Your task to perform on an android device: open sync settings in chrome Image 0: 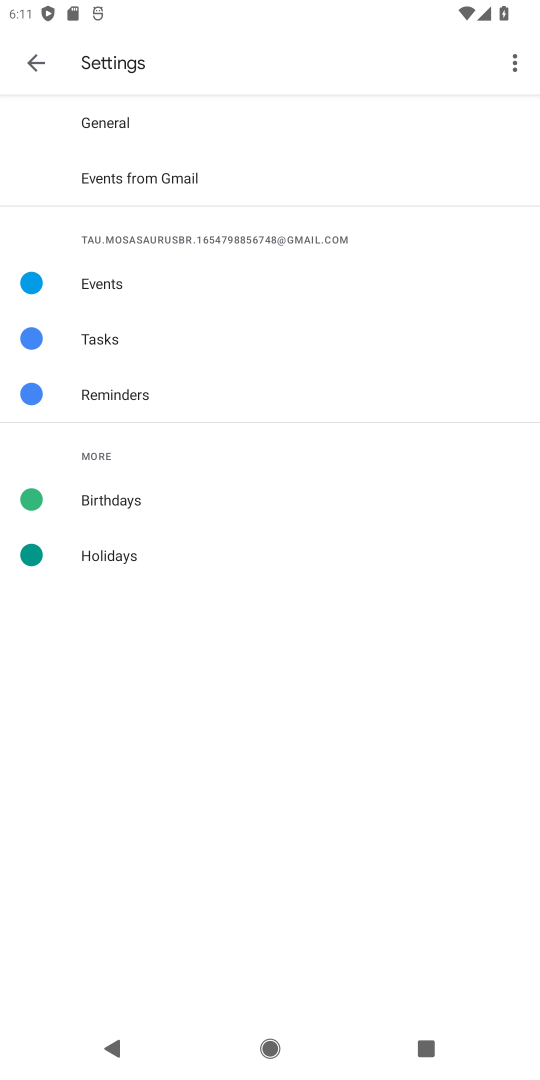
Step 0: press home button
Your task to perform on an android device: open sync settings in chrome Image 1: 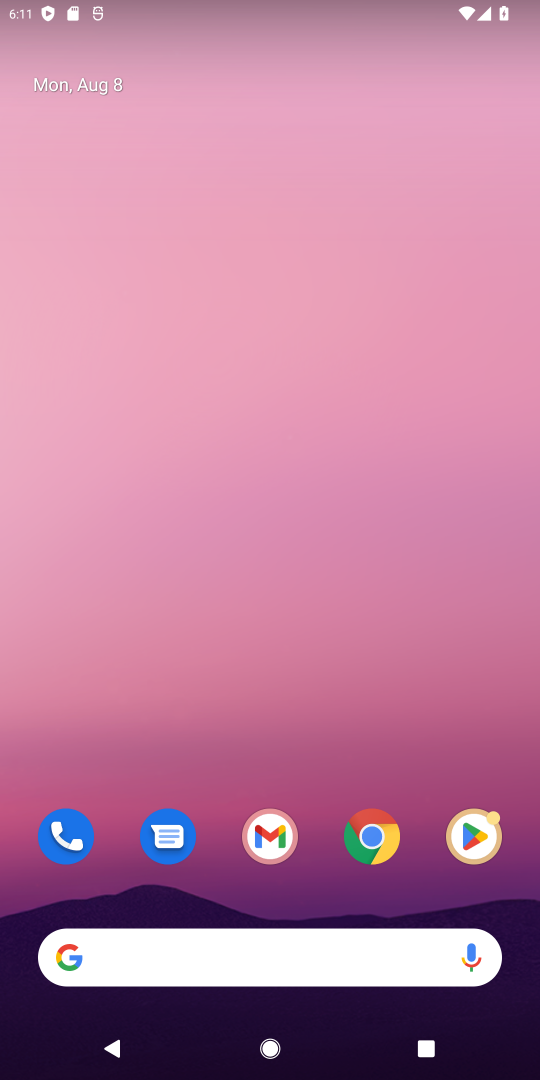
Step 1: drag from (309, 694) to (372, 46)
Your task to perform on an android device: open sync settings in chrome Image 2: 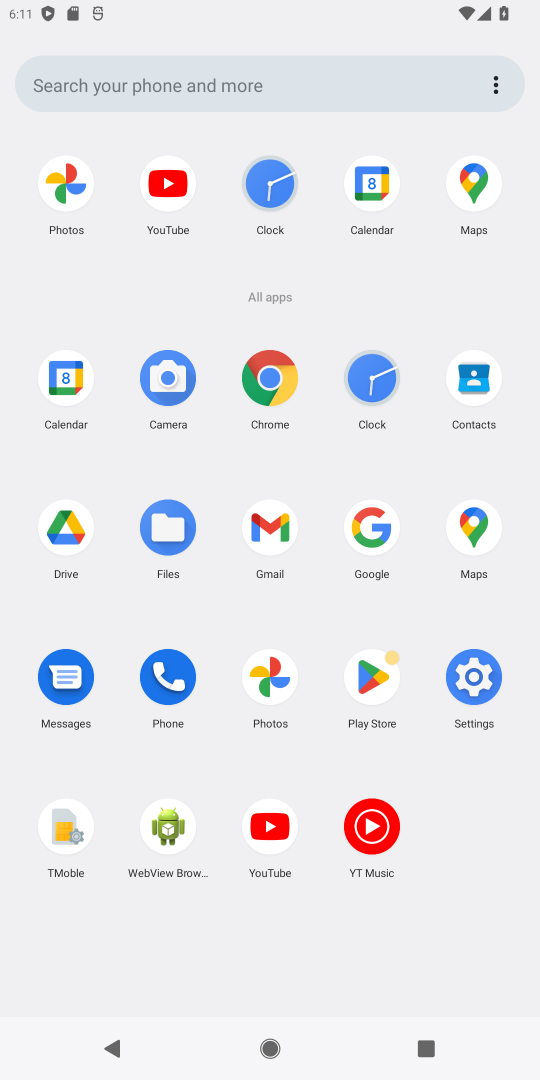
Step 2: click (280, 391)
Your task to perform on an android device: open sync settings in chrome Image 3: 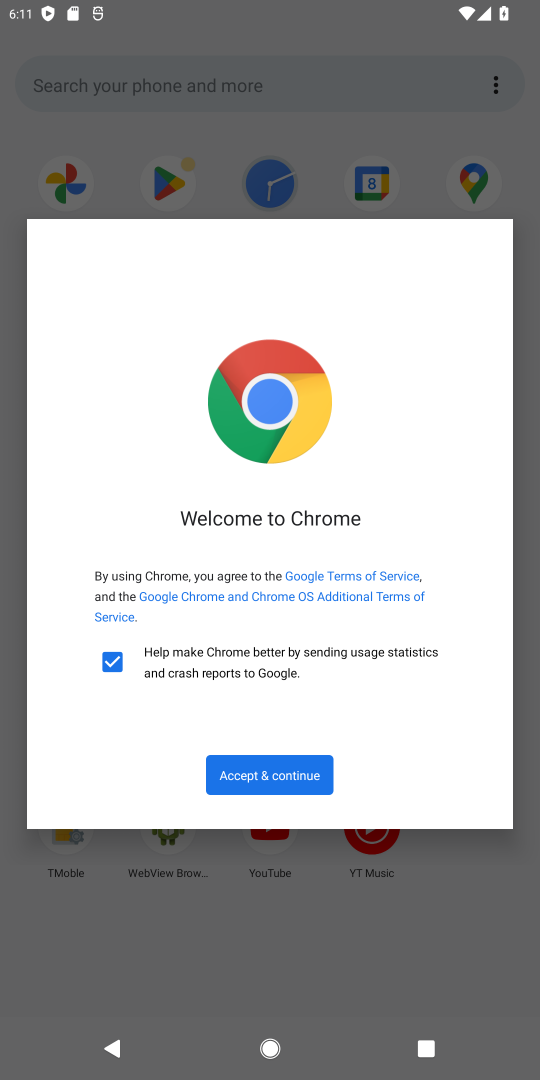
Step 3: click (310, 762)
Your task to perform on an android device: open sync settings in chrome Image 4: 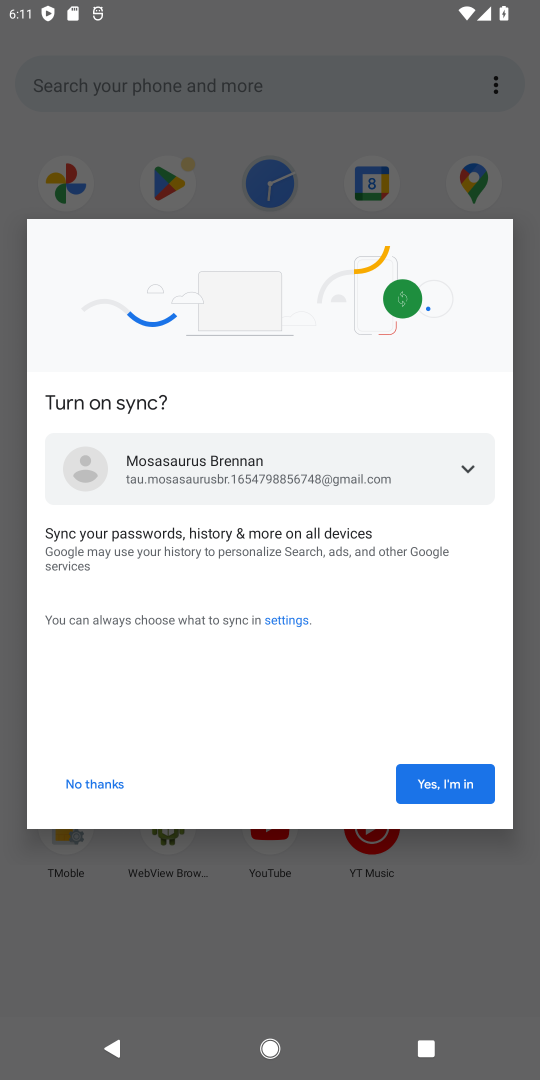
Step 4: click (467, 782)
Your task to perform on an android device: open sync settings in chrome Image 5: 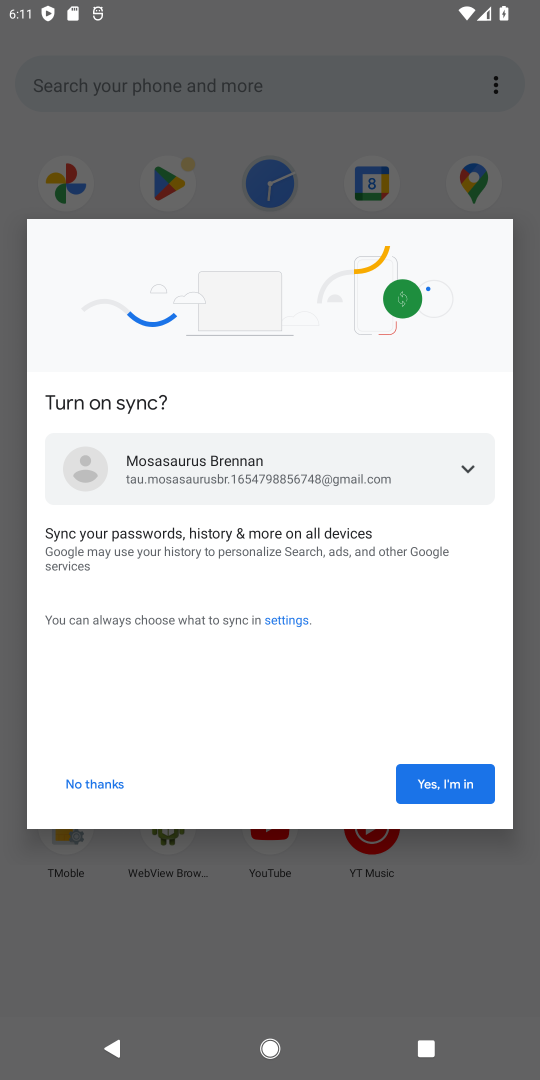
Step 5: click (444, 792)
Your task to perform on an android device: open sync settings in chrome Image 6: 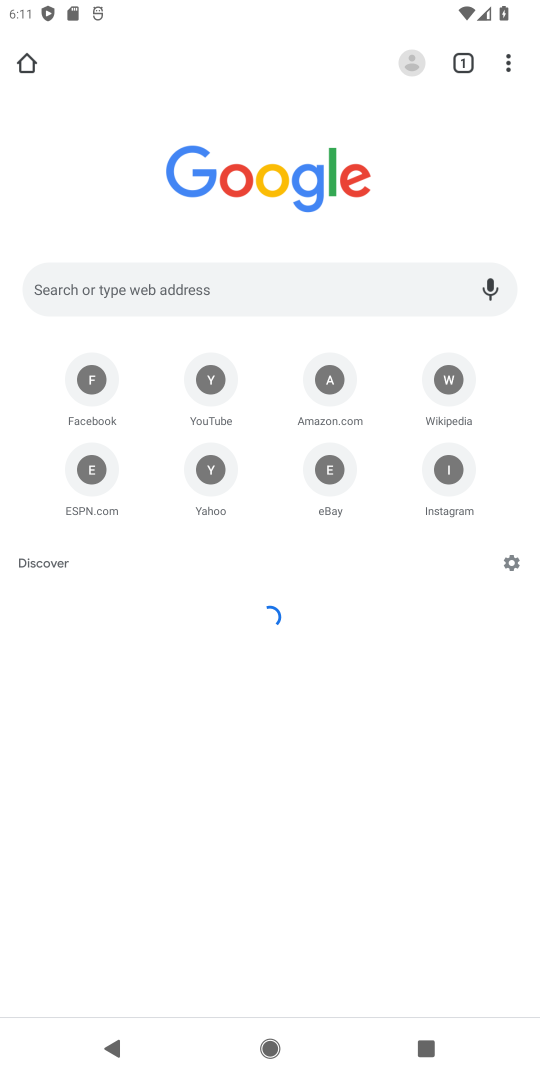
Step 6: click (512, 69)
Your task to perform on an android device: open sync settings in chrome Image 7: 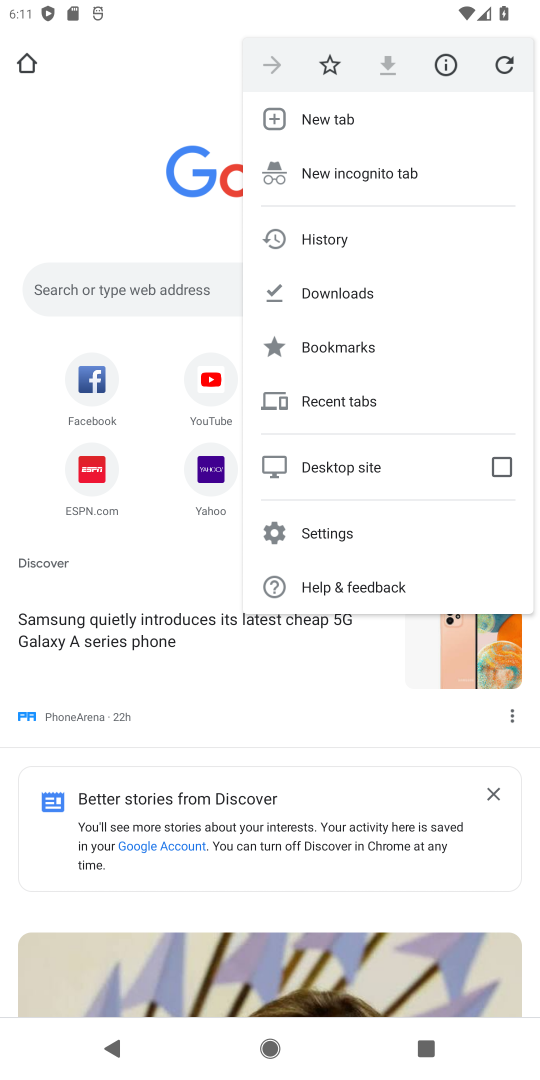
Step 7: click (351, 537)
Your task to perform on an android device: open sync settings in chrome Image 8: 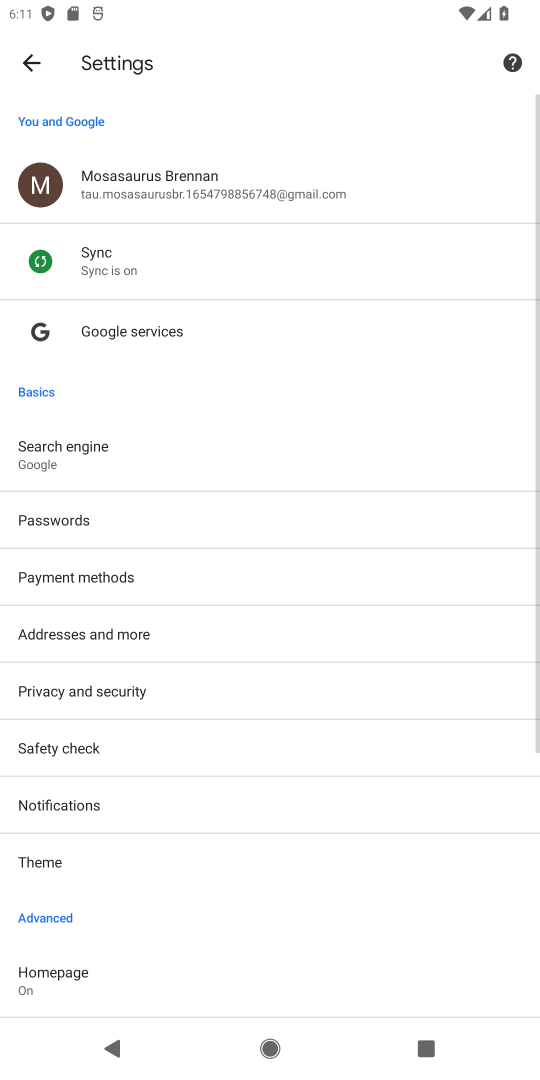
Step 8: click (270, 266)
Your task to perform on an android device: open sync settings in chrome Image 9: 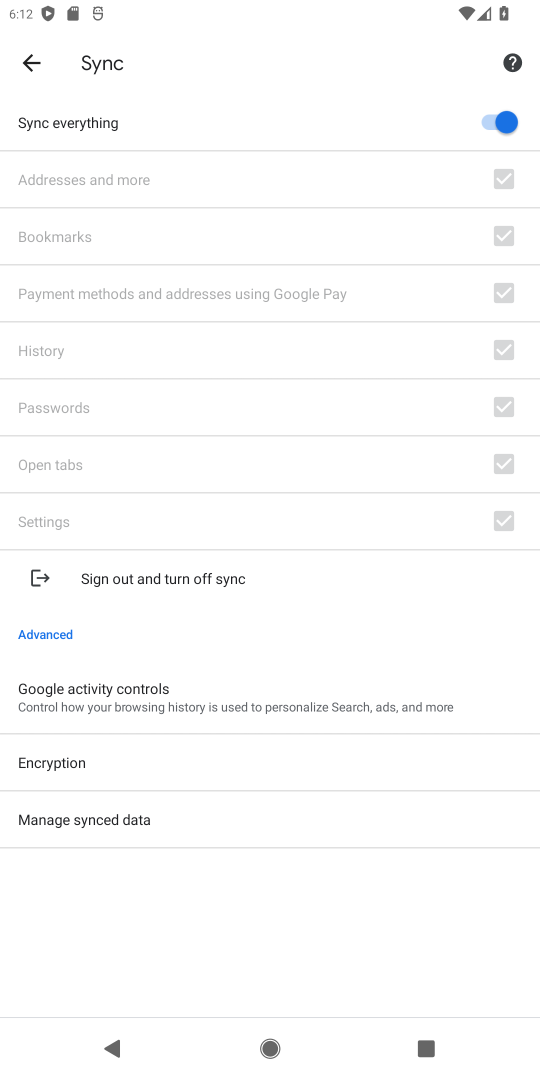
Step 9: task complete